Your task to perform on an android device: Go to location settings Image 0: 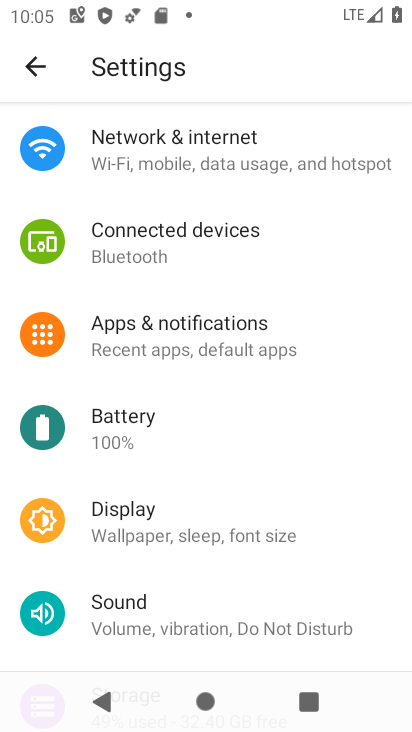
Step 0: drag from (259, 509) to (304, 175)
Your task to perform on an android device: Go to location settings Image 1: 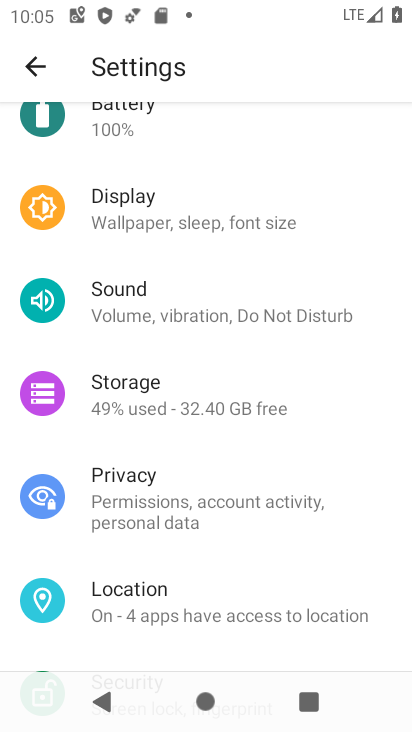
Step 1: click (226, 601)
Your task to perform on an android device: Go to location settings Image 2: 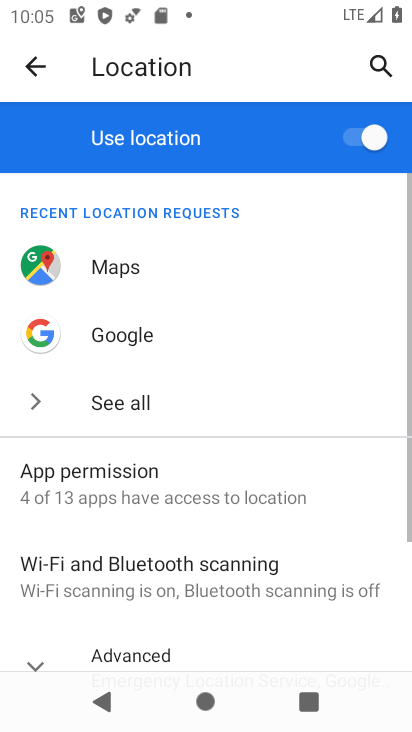
Step 2: task complete